Your task to perform on an android device: Open network settings Image 0: 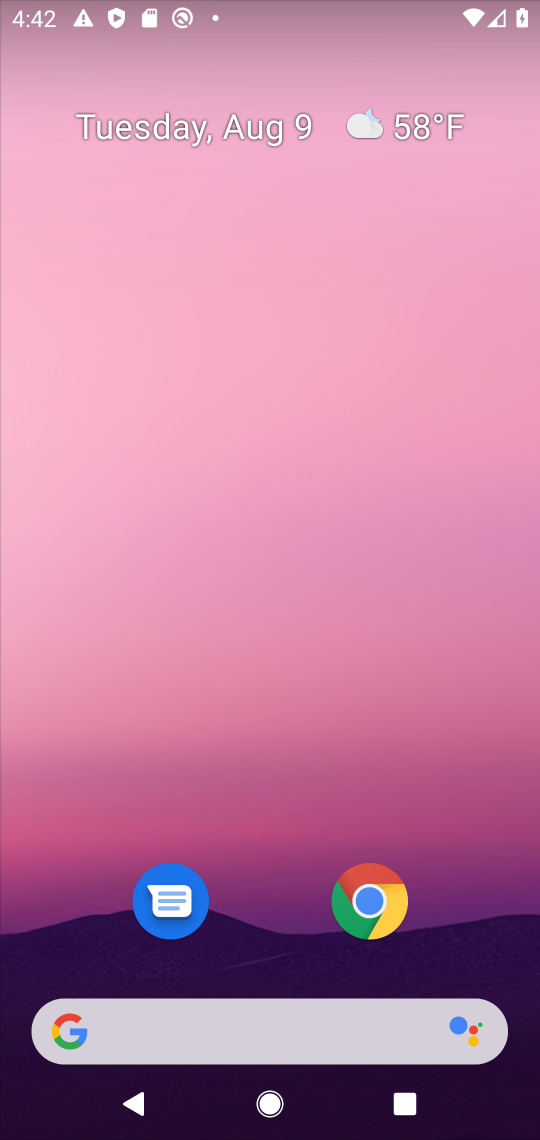
Step 0: press home button
Your task to perform on an android device: Open network settings Image 1: 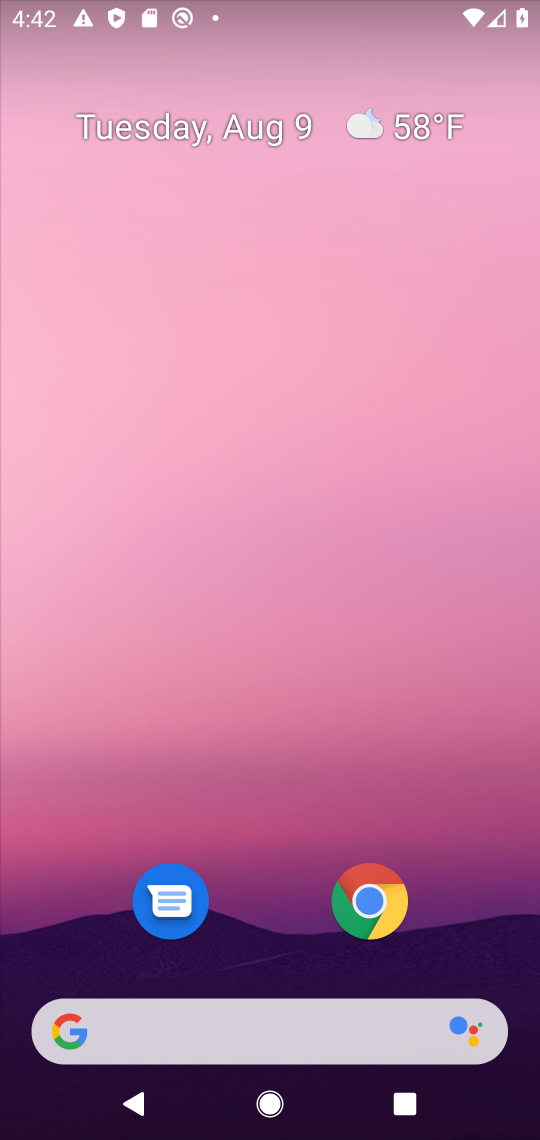
Step 1: press home button
Your task to perform on an android device: Open network settings Image 2: 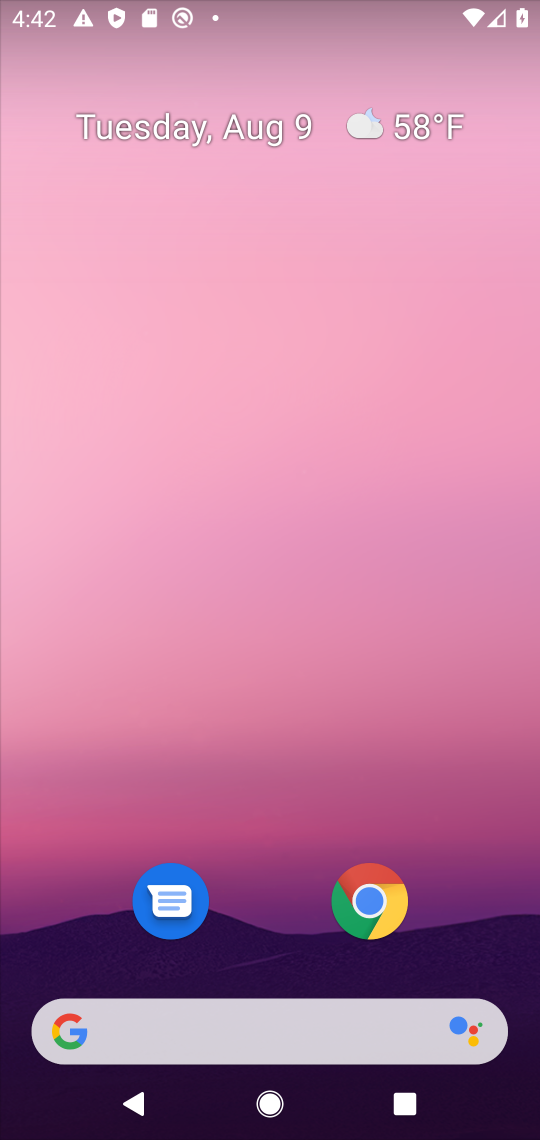
Step 2: press home button
Your task to perform on an android device: Open network settings Image 3: 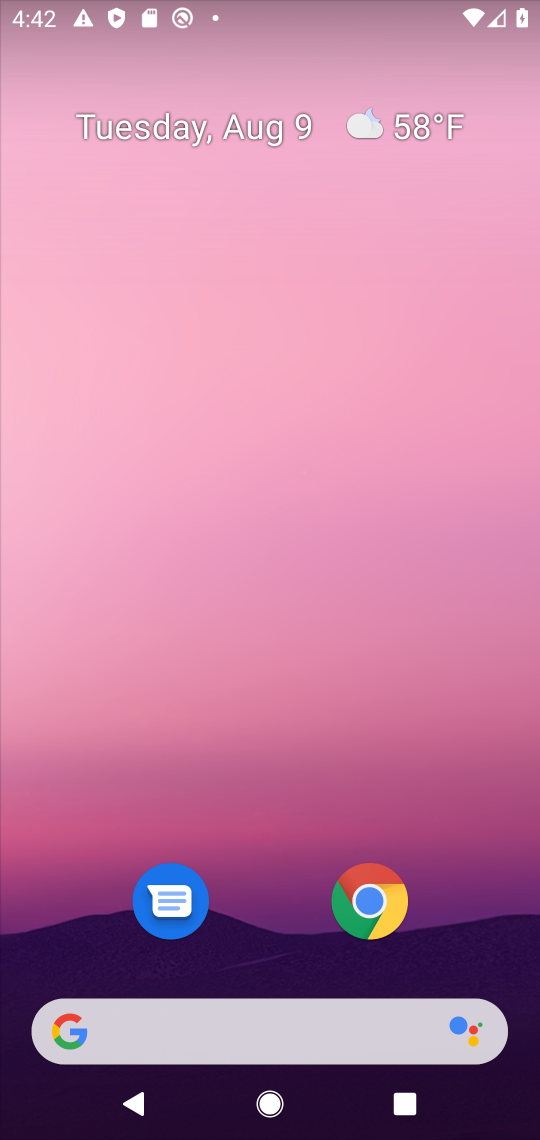
Step 3: press home button
Your task to perform on an android device: Open network settings Image 4: 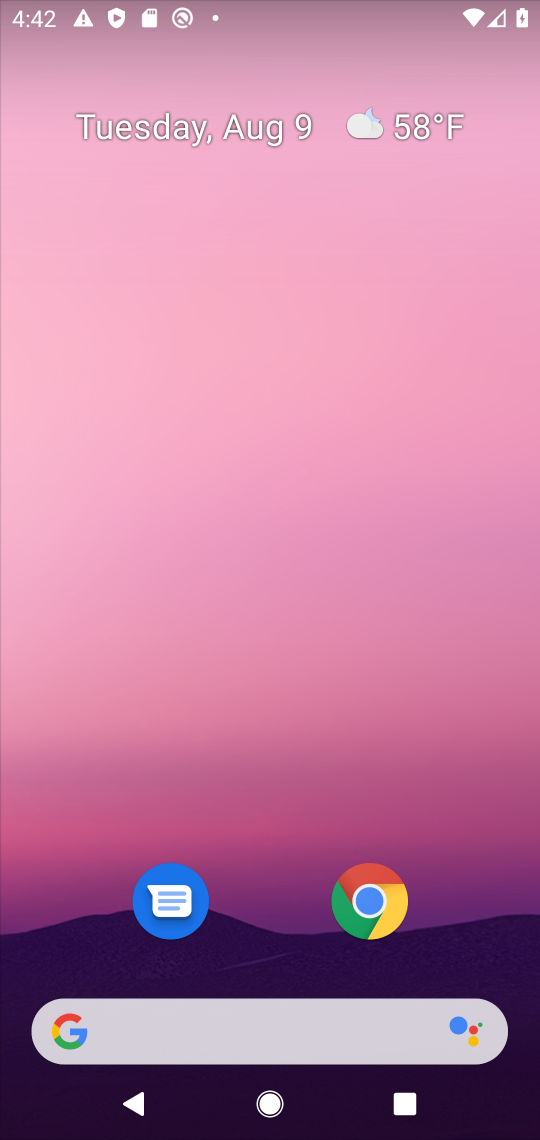
Step 4: press home button
Your task to perform on an android device: Open network settings Image 5: 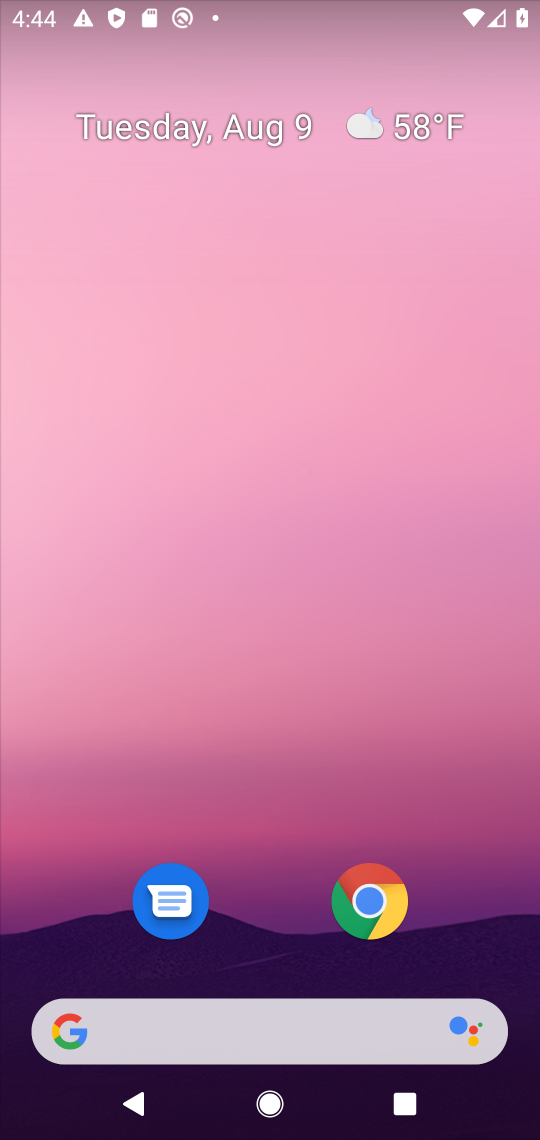
Step 5: drag from (476, 964) to (351, 6)
Your task to perform on an android device: Open network settings Image 6: 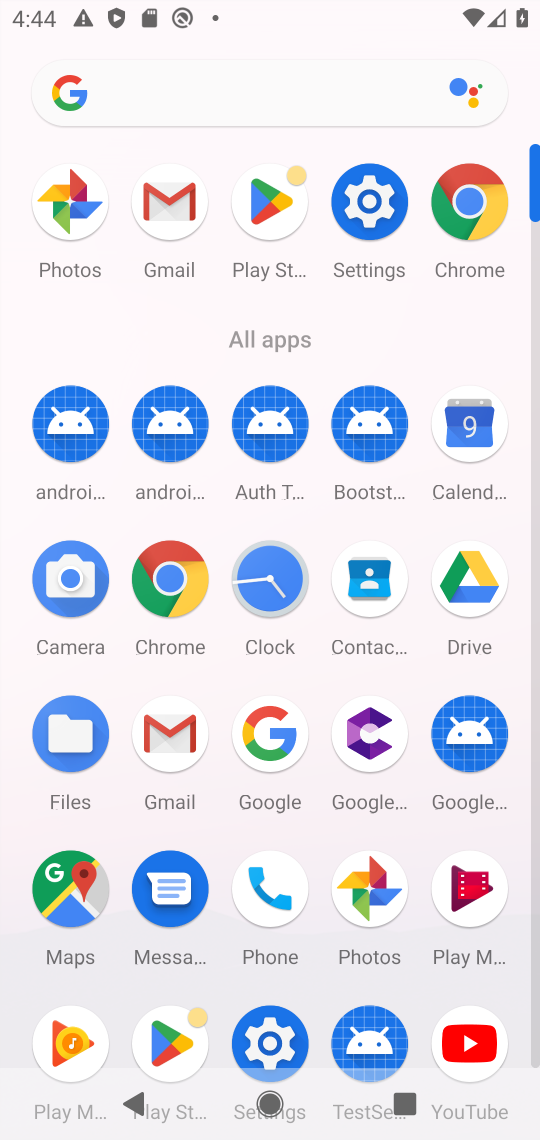
Step 6: click (392, 180)
Your task to perform on an android device: Open network settings Image 7: 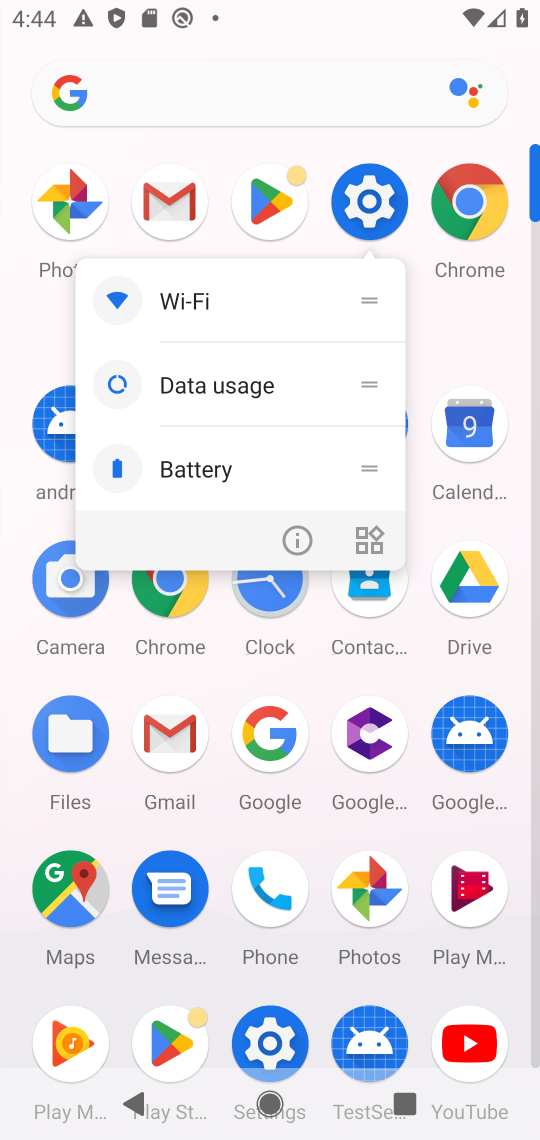
Step 7: click (392, 180)
Your task to perform on an android device: Open network settings Image 8: 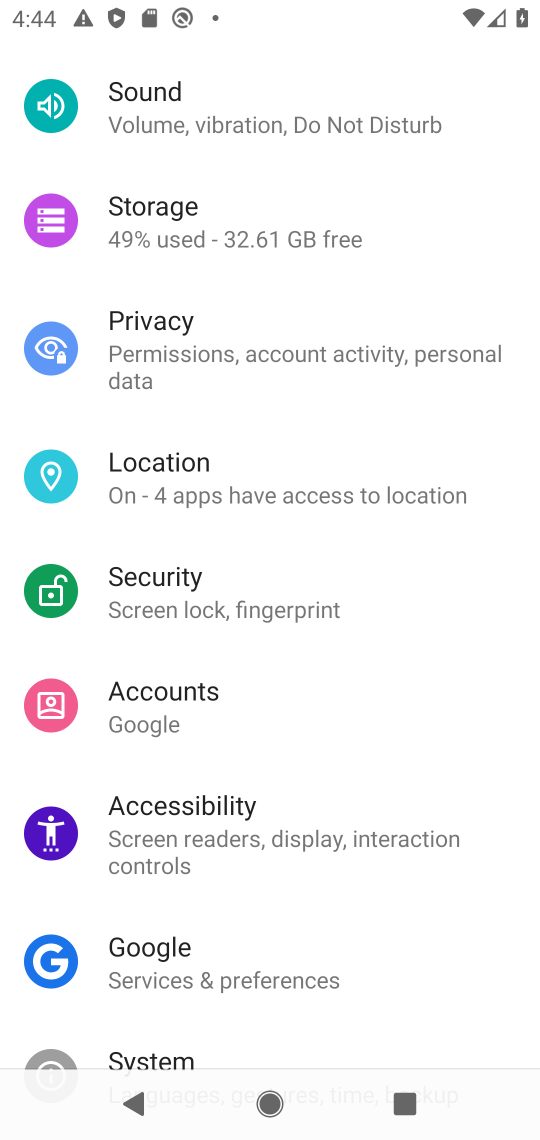
Step 8: drag from (377, 203) to (374, 913)
Your task to perform on an android device: Open network settings Image 9: 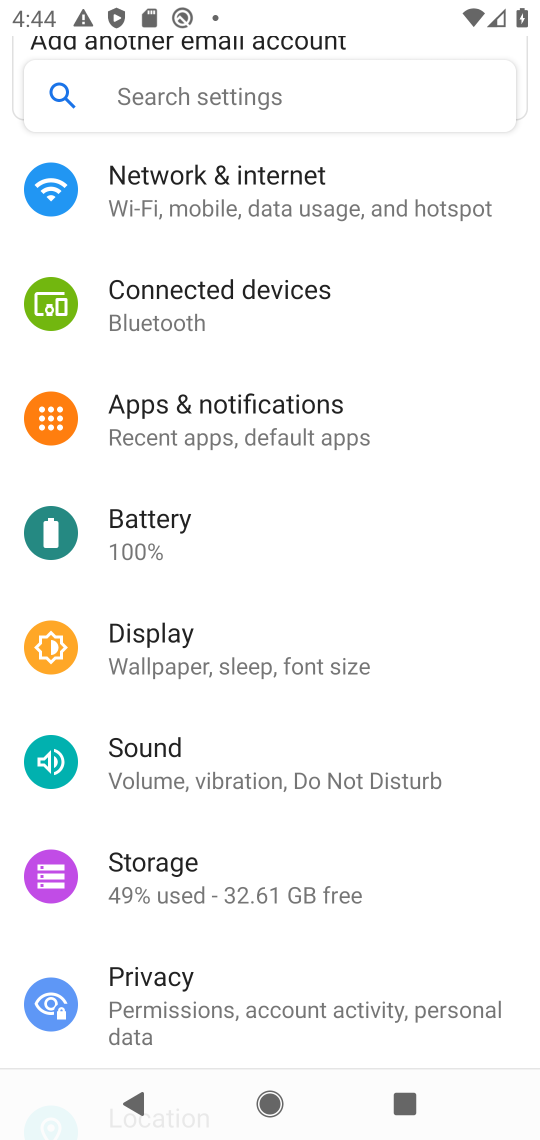
Step 9: click (352, 186)
Your task to perform on an android device: Open network settings Image 10: 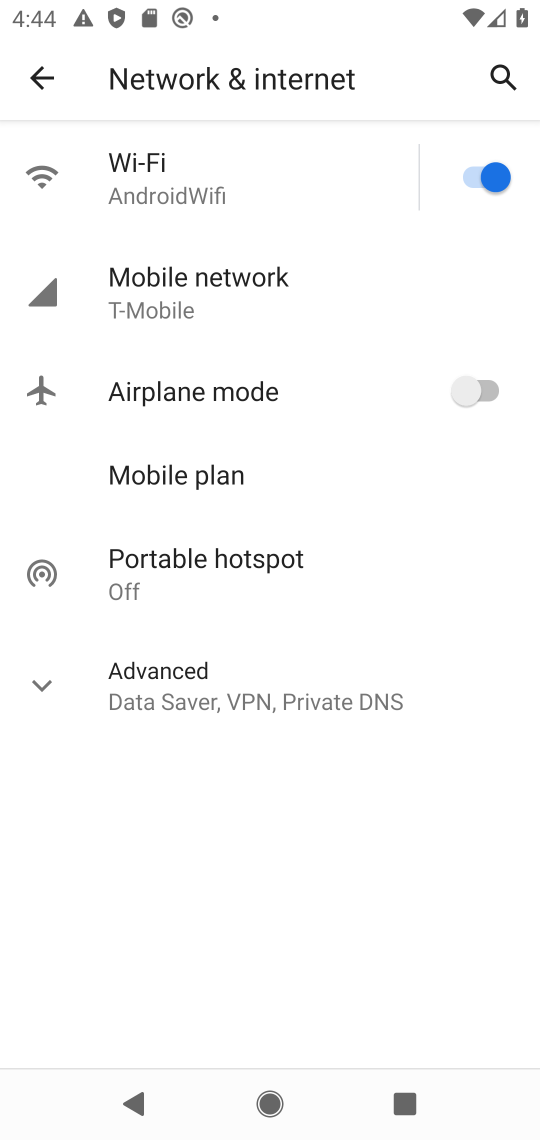
Step 10: task complete